Your task to perform on an android device: turn on airplane mode Image 0: 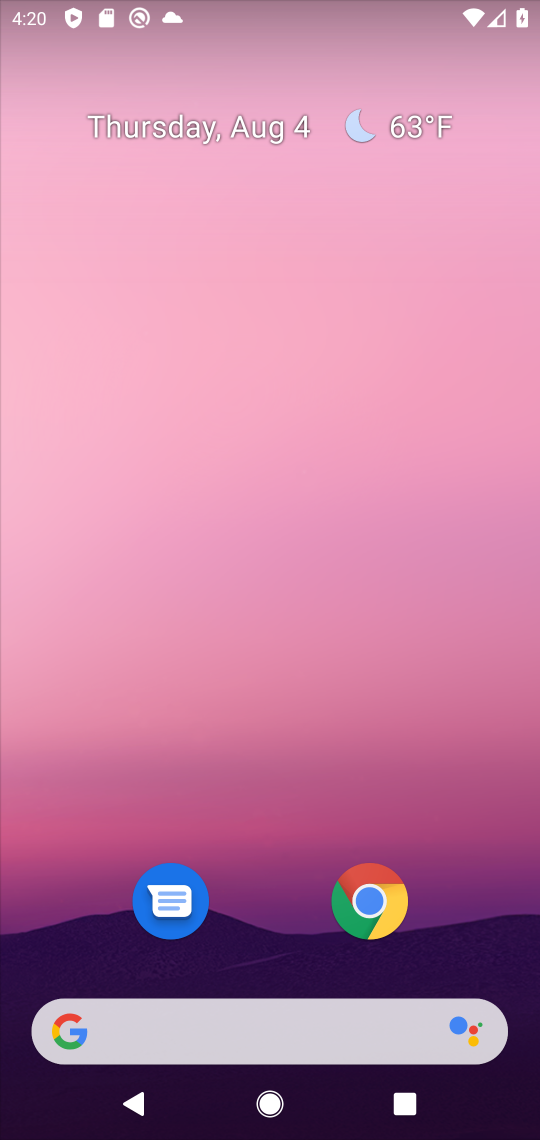
Step 0: drag from (255, 3) to (112, 774)
Your task to perform on an android device: turn on airplane mode Image 1: 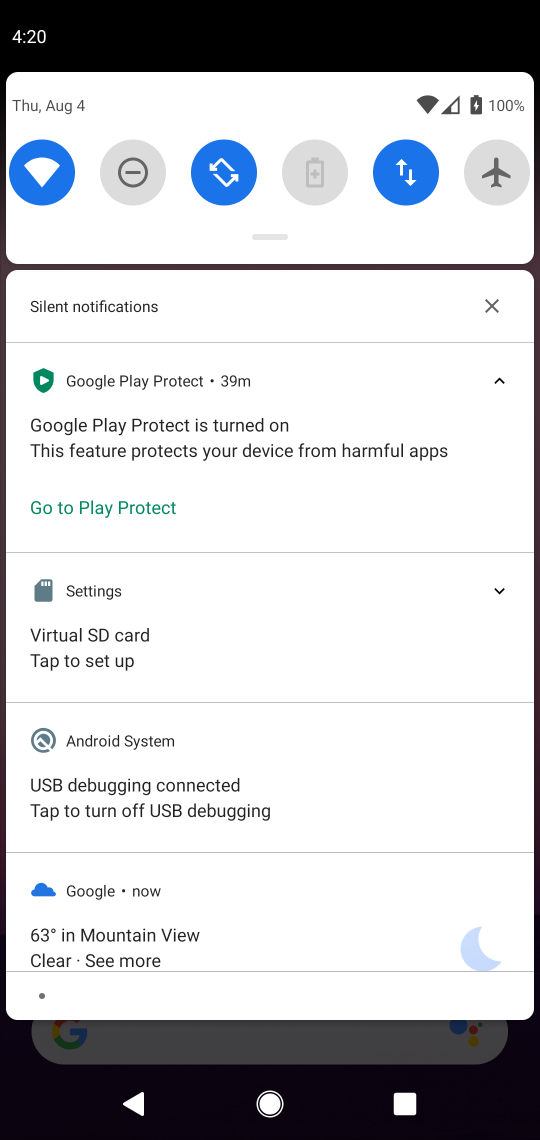
Step 1: click (497, 168)
Your task to perform on an android device: turn on airplane mode Image 2: 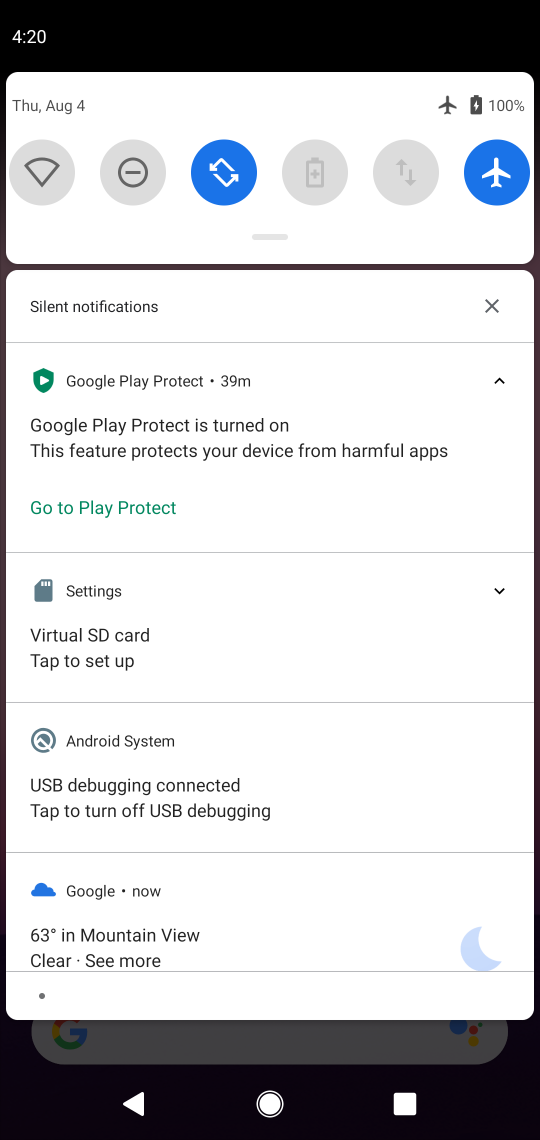
Step 2: task complete